Your task to perform on an android device: turn notification dots off Image 0: 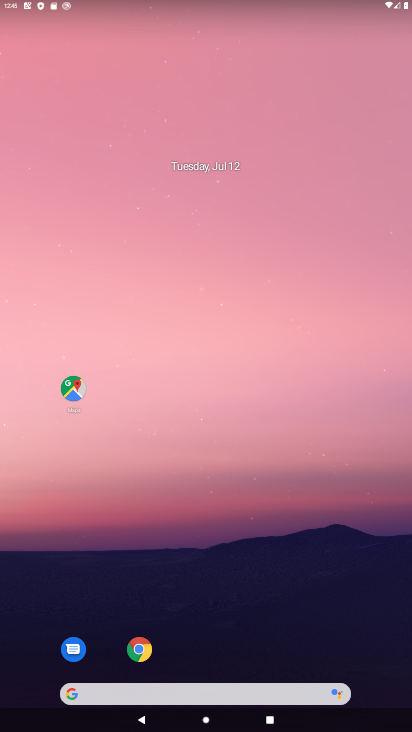
Step 0: click (67, 404)
Your task to perform on an android device: turn notification dots off Image 1: 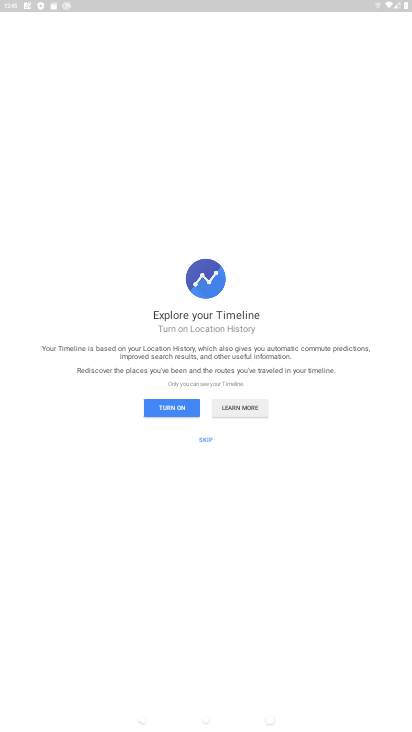
Step 1: press home button
Your task to perform on an android device: turn notification dots off Image 2: 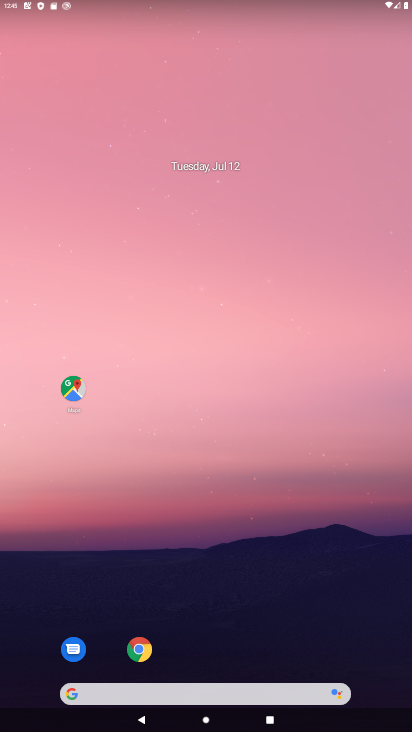
Step 2: drag from (238, 665) to (188, 41)
Your task to perform on an android device: turn notification dots off Image 3: 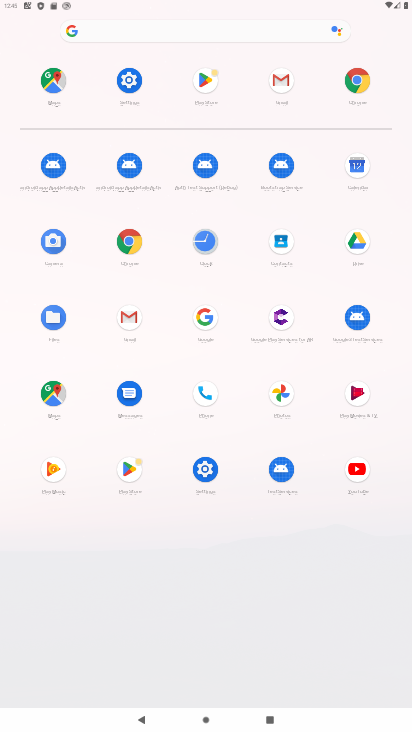
Step 3: click (140, 76)
Your task to perform on an android device: turn notification dots off Image 4: 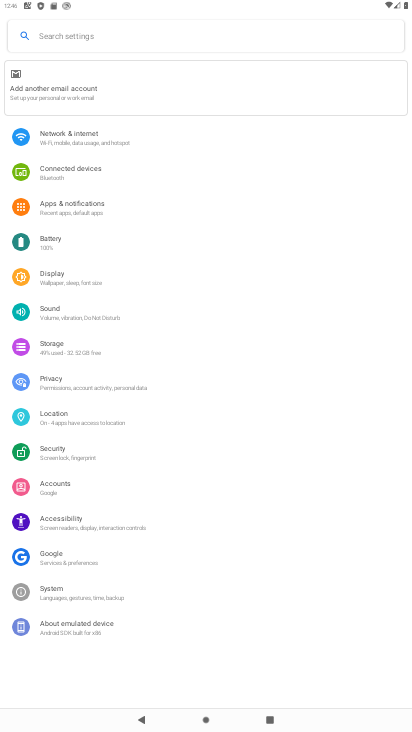
Step 4: click (105, 210)
Your task to perform on an android device: turn notification dots off Image 5: 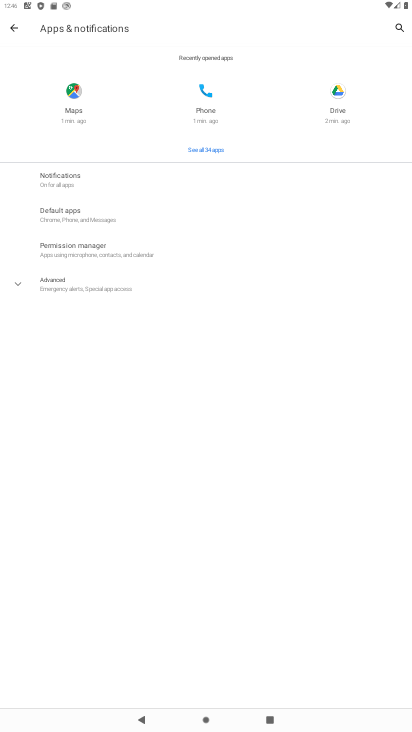
Step 5: click (105, 190)
Your task to perform on an android device: turn notification dots off Image 6: 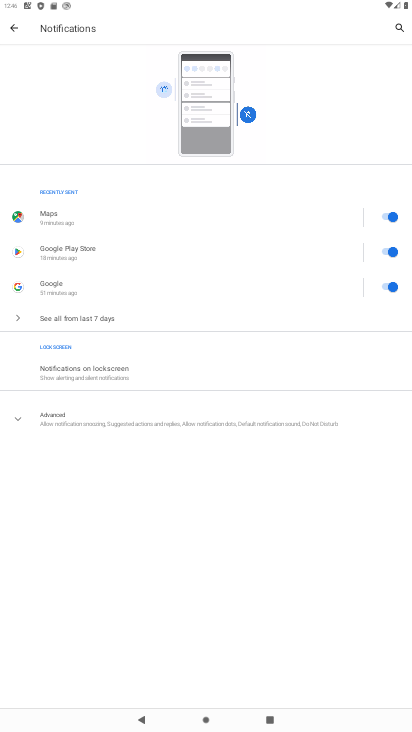
Step 6: task complete